Your task to perform on an android device: Open Google Chrome Image 0: 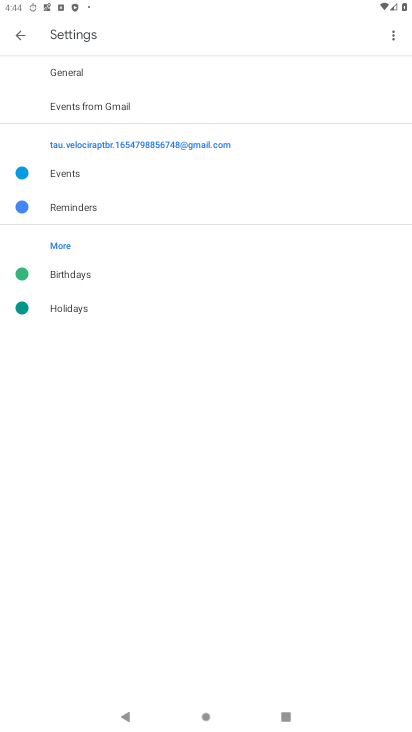
Step 0: press home button
Your task to perform on an android device: Open Google Chrome Image 1: 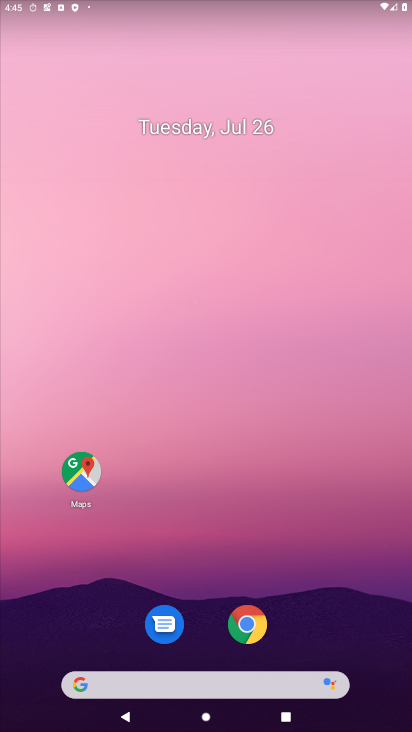
Step 1: drag from (238, 692) to (295, 42)
Your task to perform on an android device: Open Google Chrome Image 2: 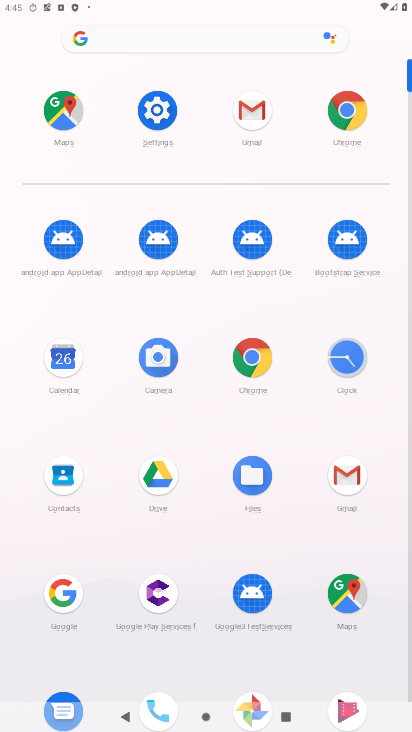
Step 2: click (254, 367)
Your task to perform on an android device: Open Google Chrome Image 3: 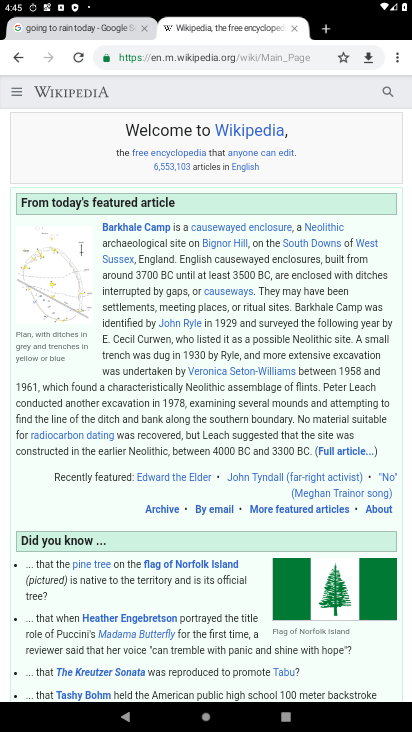
Step 3: task complete